Your task to perform on an android device: empty trash in the gmail app Image 0: 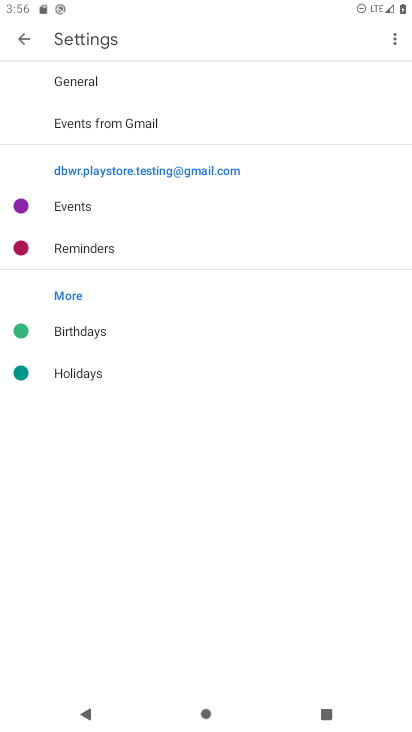
Step 0: press home button
Your task to perform on an android device: empty trash in the gmail app Image 1: 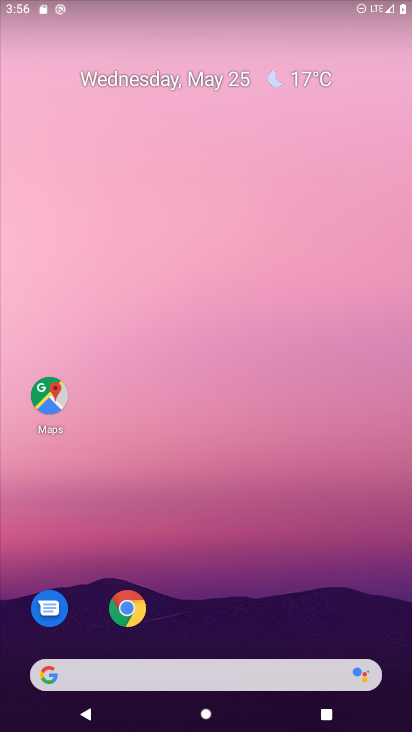
Step 1: drag from (358, 583) to (305, 11)
Your task to perform on an android device: empty trash in the gmail app Image 2: 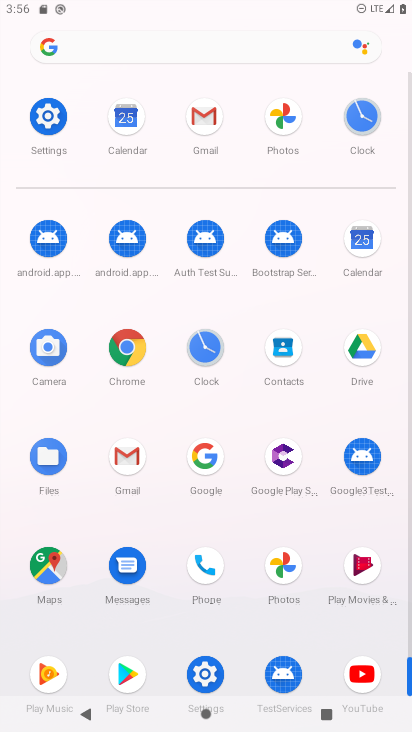
Step 2: click (123, 451)
Your task to perform on an android device: empty trash in the gmail app Image 3: 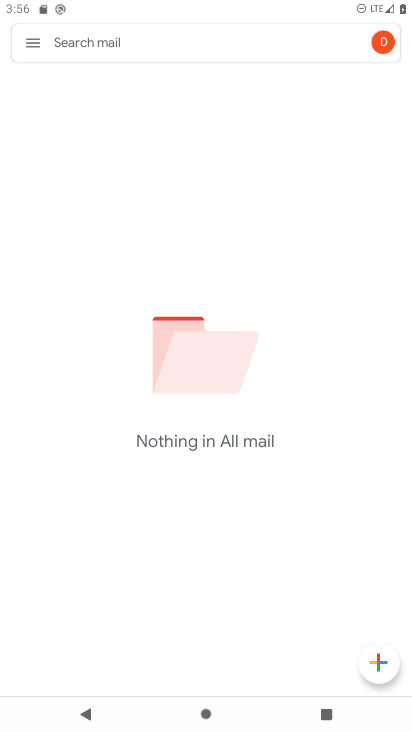
Step 3: click (37, 46)
Your task to perform on an android device: empty trash in the gmail app Image 4: 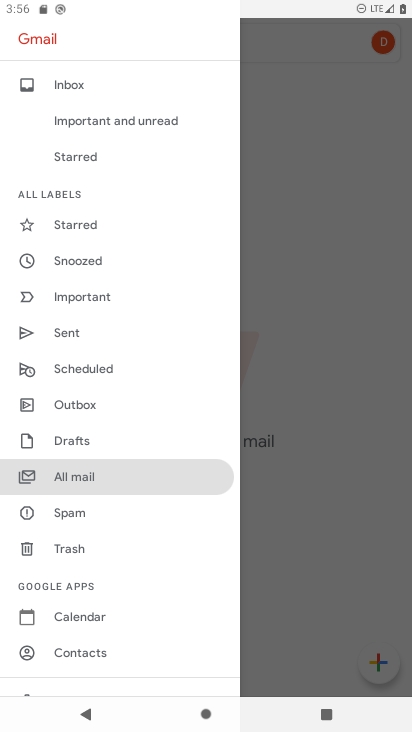
Step 4: click (73, 551)
Your task to perform on an android device: empty trash in the gmail app Image 5: 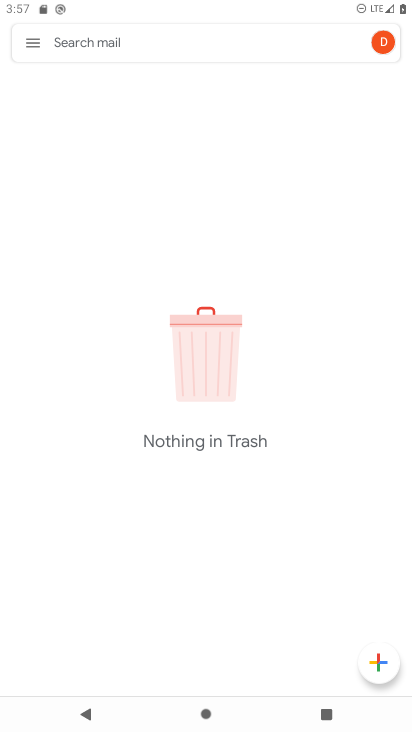
Step 5: task complete